Your task to perform on an android device: open app "Duolingo: language lessons" (install if not already installed) and enter user name: "omens@gmail.com" and password: "casks" Image 0: 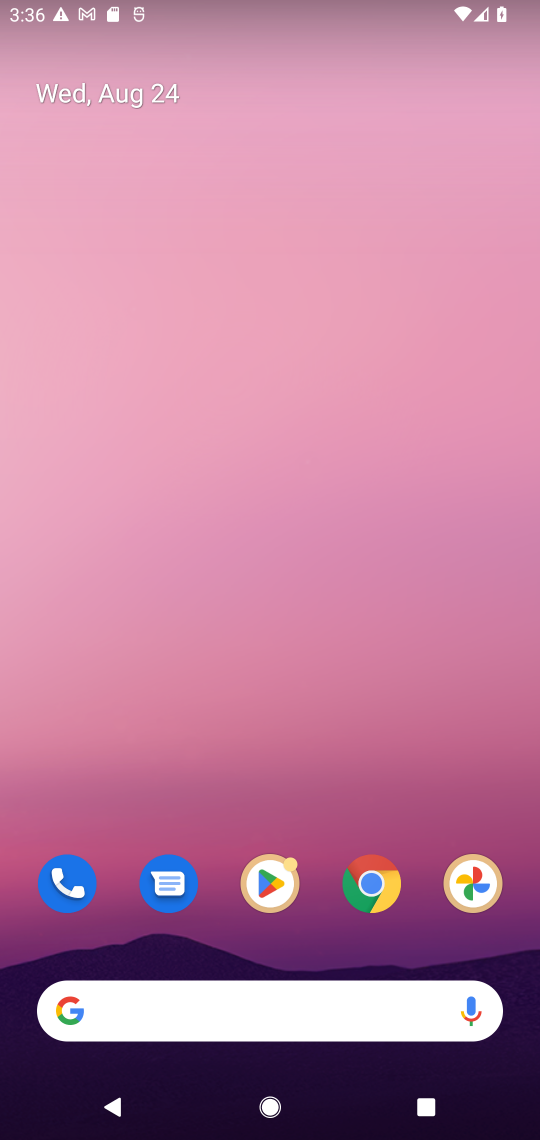
Step 0: drag from (255, 985) to (187, 298)
Your task to perform on an android device: open app "Duolingo: language lessons" (install if not already installed) and enter user name: "omens@gmail.com" and password: "casks" Image 1: 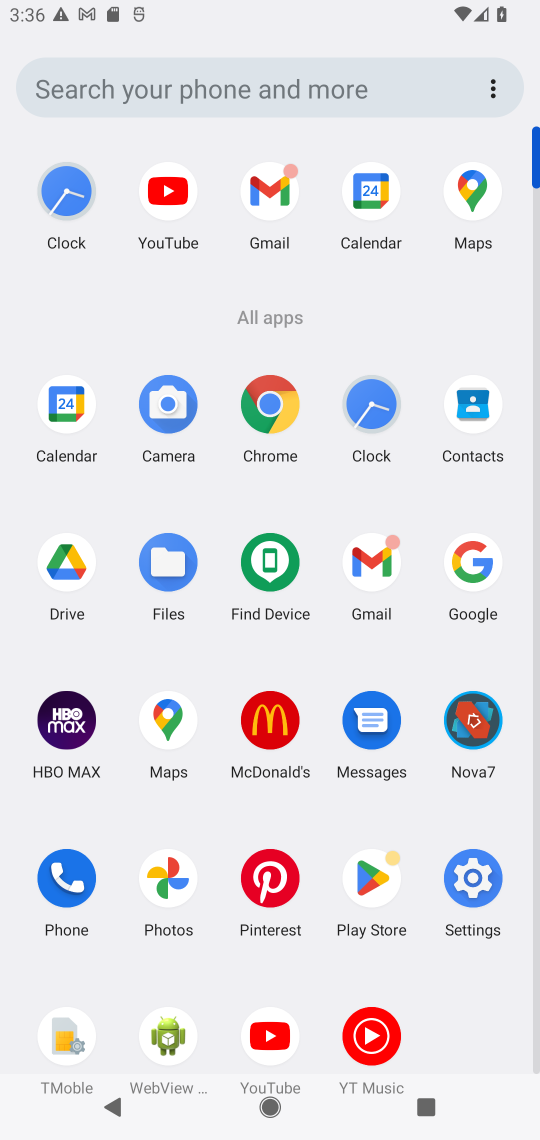
Step 1: click (364, 876)
Your task to perform on an android device: open app "Duolingo: language lessons" (install if not already installed) and enter user name: "omens@gmail.com" and password: "casks" Image 2: 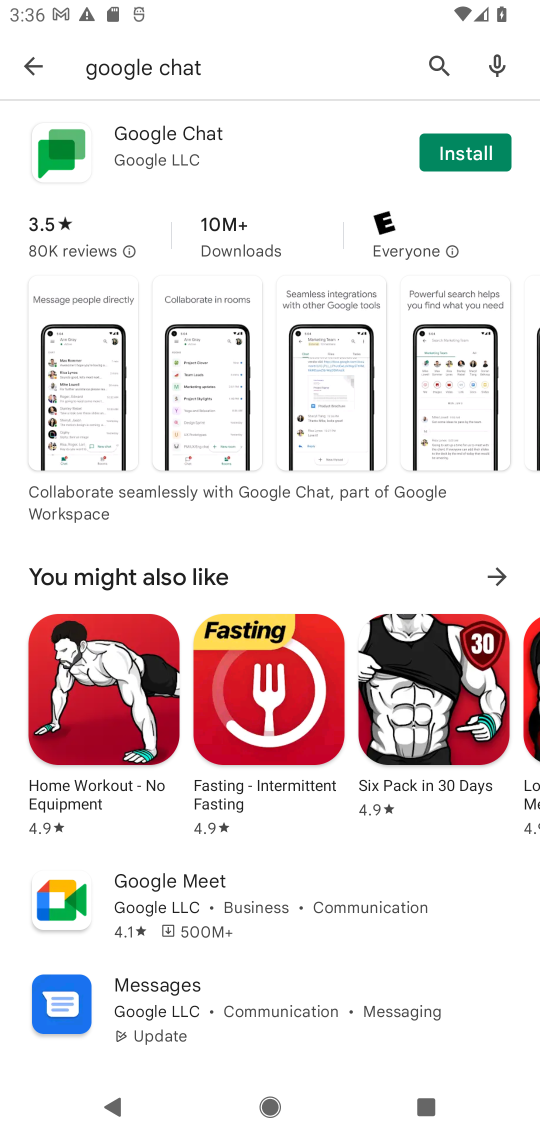
Step 2: click (437, 66)
Your task to perform on an android device: open app "Duolingo: language lessons" (install if not already installed) and enter user name: "omens@gmail.com" and password: "casks" Image 3: 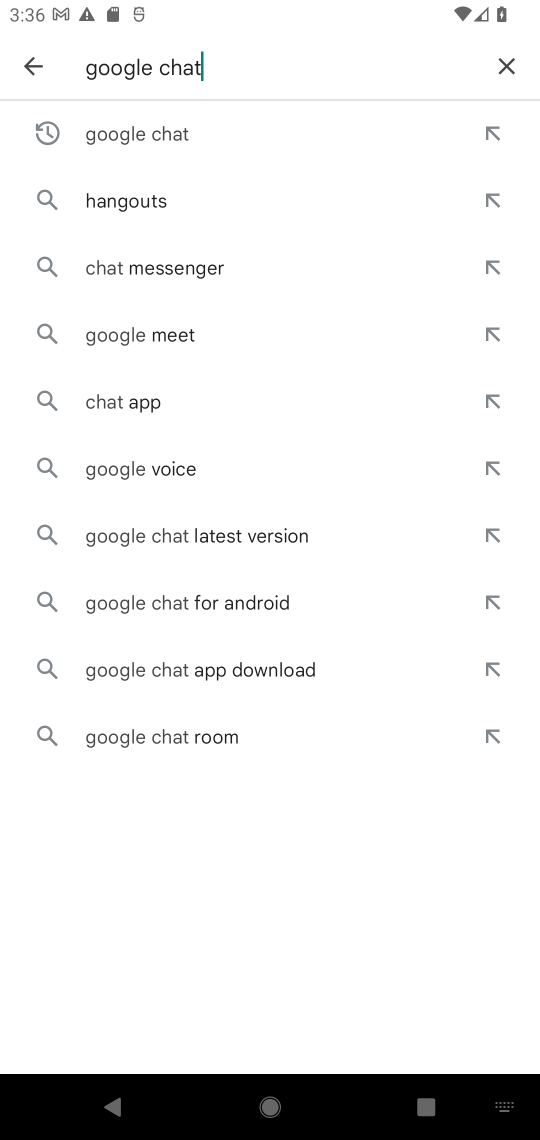
Step 3: click (504, 64)
Your task to perform on an android device: open app "Duolingo: language lessons" (install if not already installed) and enter user name: "omens@gmail.com" and password: "casks" Image 4: 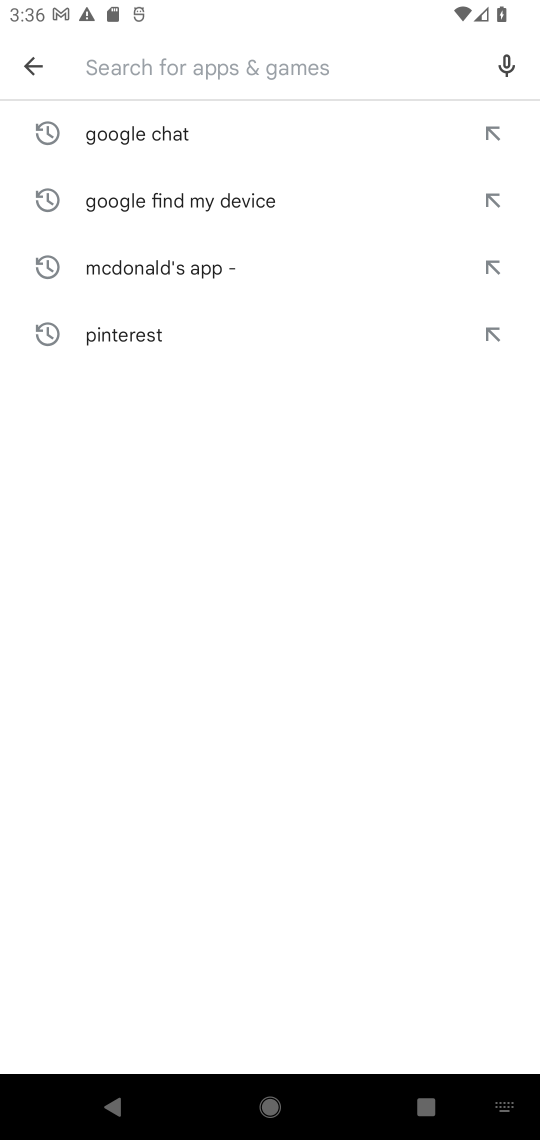
Step 4: type "Duolingo: language lessons"
Your task to perform on an android device: open app "Duolingo: language lessons" (install if not already installed) and enter user name: "omens@gmail.com" and password: "casks" Image 5: 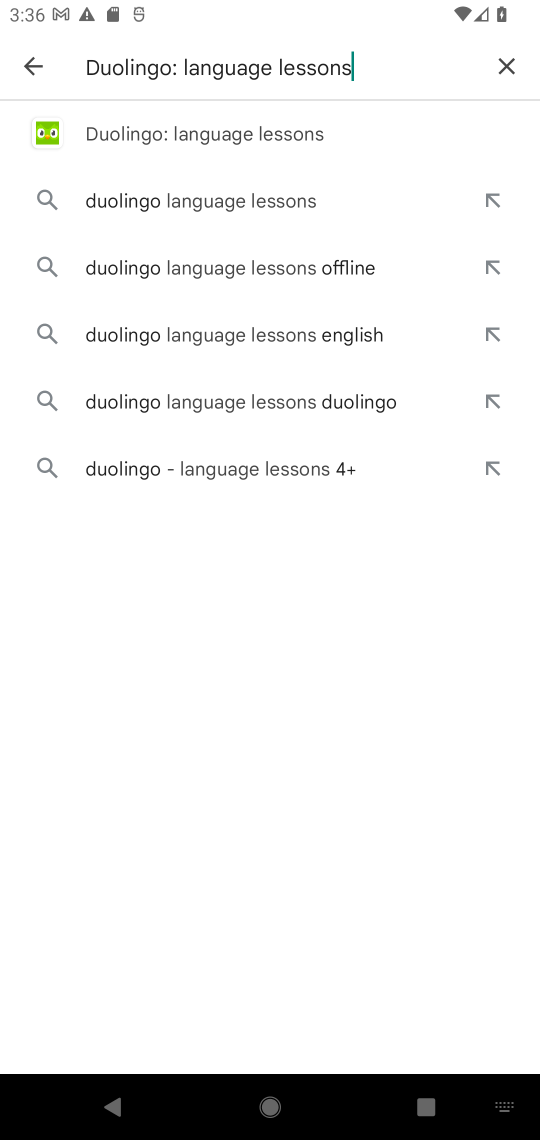
Step 5: click (197, 133)
Your task to perform on an android device: open app "Duolingo: language lessons" (install if not already installed) and enter user name: "omens@gmail.com" and password: "casks" Image 6: 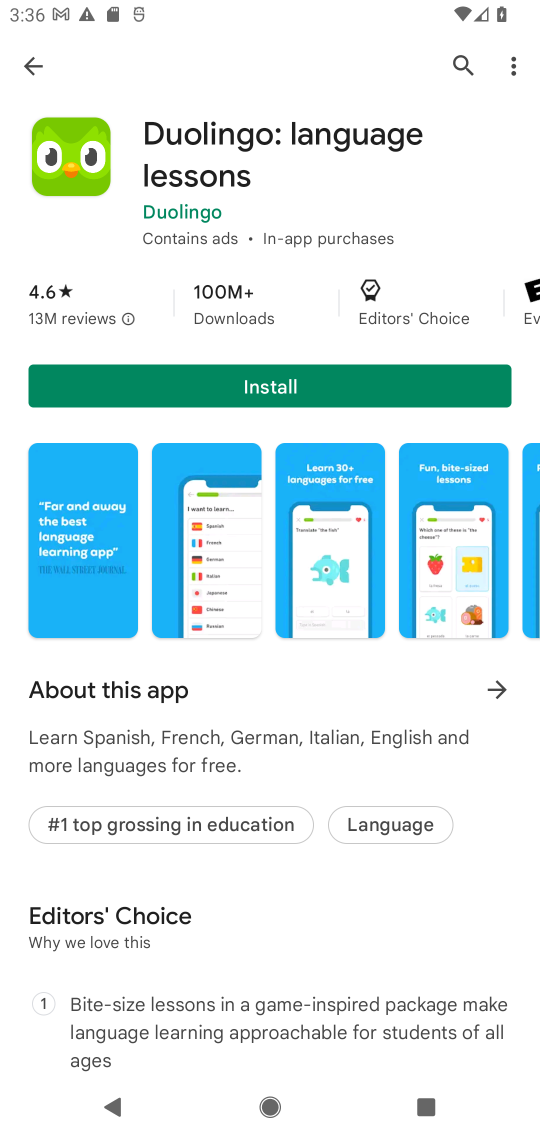
Step 6: click (274, 384)
Your task to perform on an android device: open app "Duolingo: language lessons" (install if not already installed) and enter user name: "omens@gmail.com" and password: "casks" Image 7: 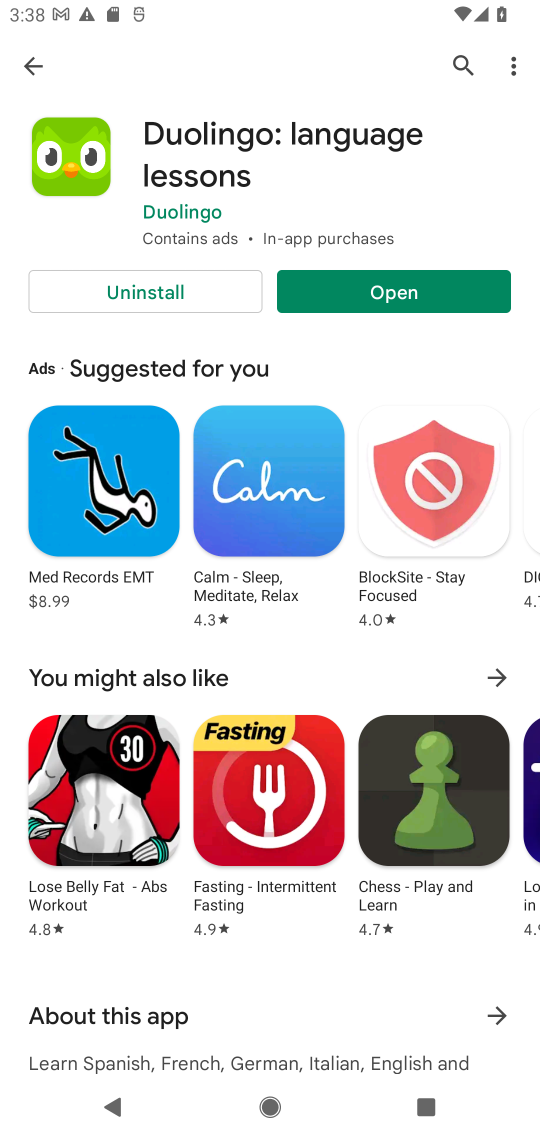
Step 7: click (346, 293)
Your task to perform on an android device: open app "Duolingo: language lessons" (install if not already installed) and enter user name: "omens@gmail.com" and password: "casks" Image 8: 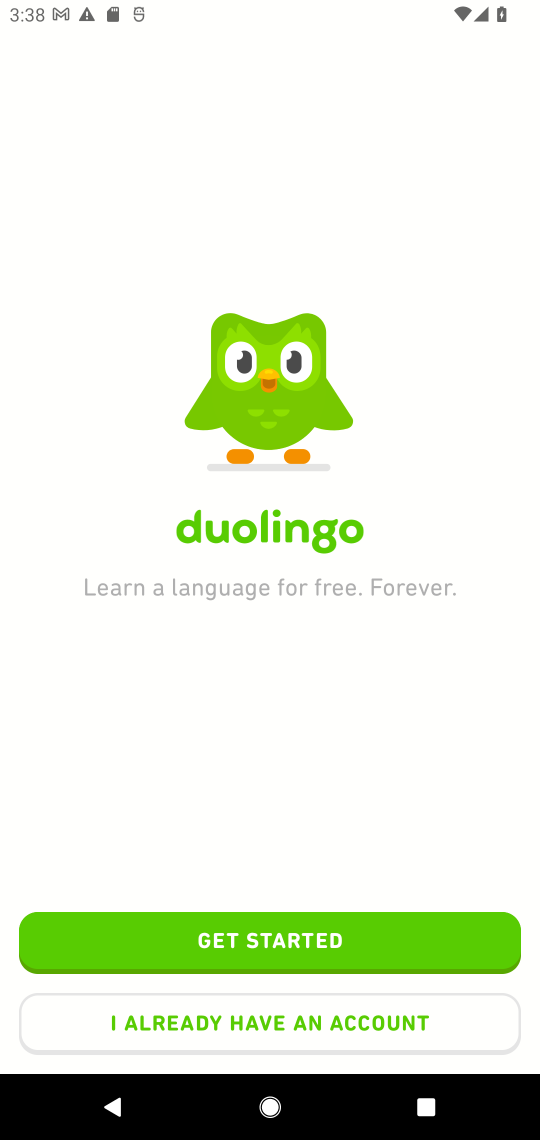
Step 8: task complete